Your task to perform on an android device: Turn off the flashlight Image 0: 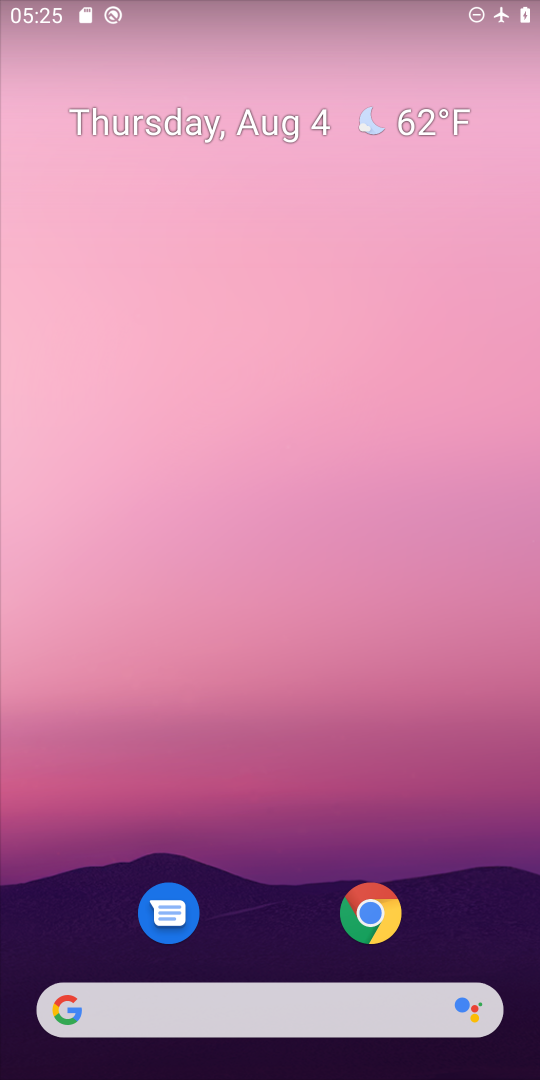
Step 0: drag from (385, 1012) to (464, 80)
Your task to perform on an android device: Turn off the flashlight Image 1: 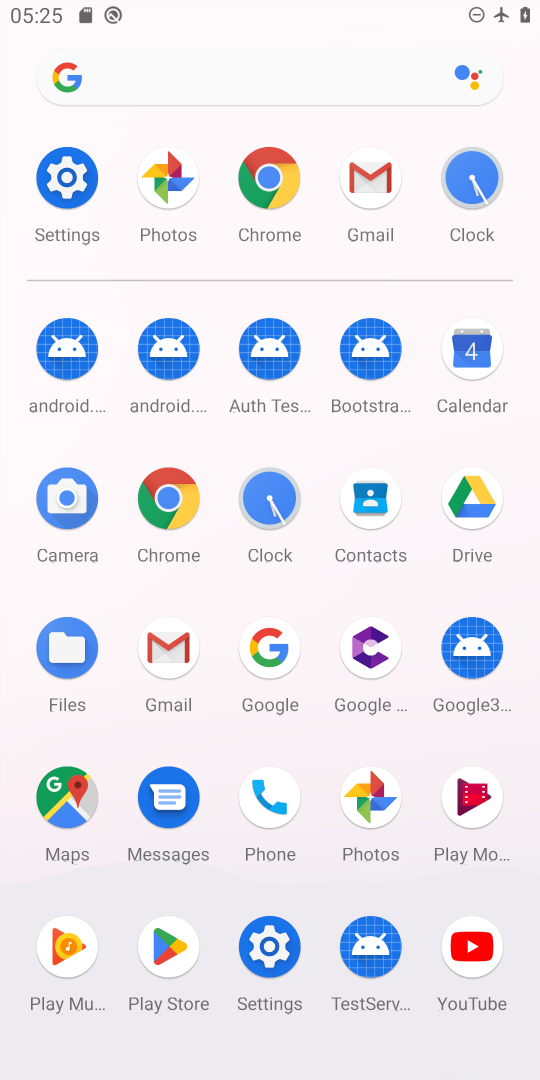
Step 1: task complete